Your task to perform on an android device: Open Google Maps and go to "Timeline" Image 0: 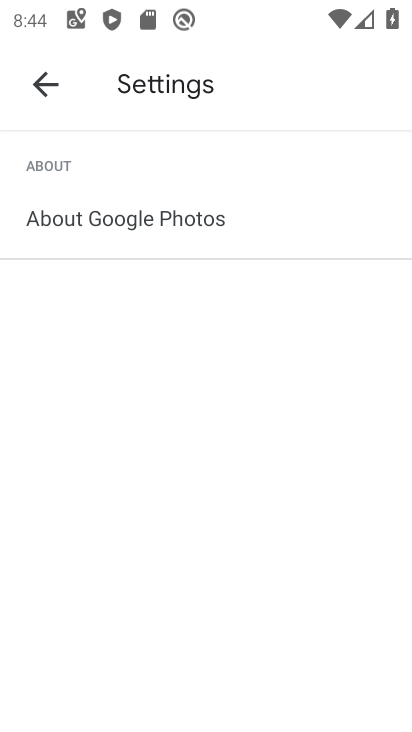
Step 0: press home button
Your task to perform on an android device: Open Google Maps and go to "Timeline" Image 1: 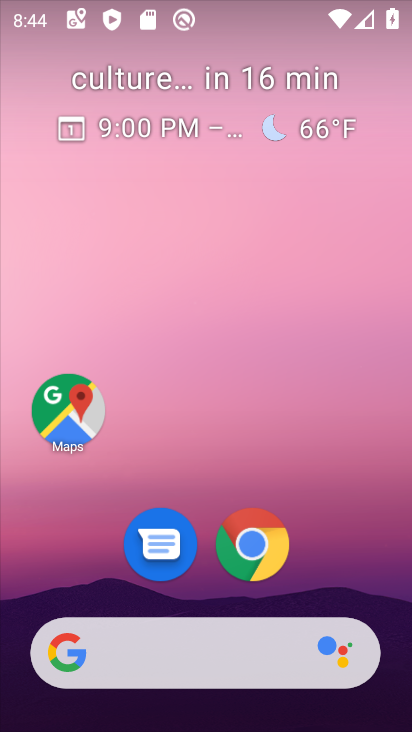
Step 1: drag from (190, 597) to (249, 218)
Your task to perform on an android device: Open Google Maps and go to "Timeline" Image 2: 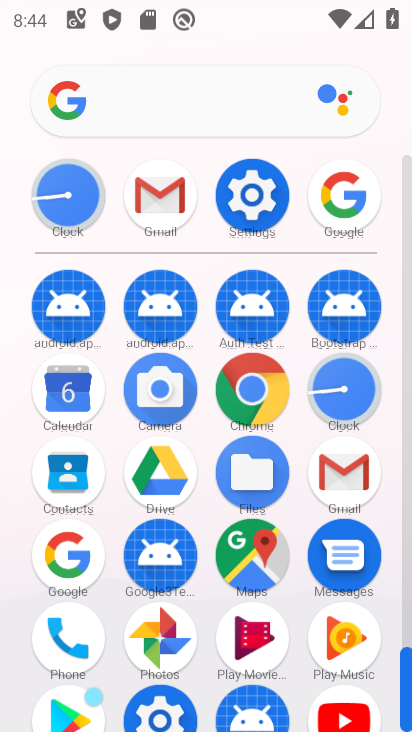
Step 2: click (258, 551)
Your task to perform on an android device: Open Google Maps and go to "Timeline" Image 3: 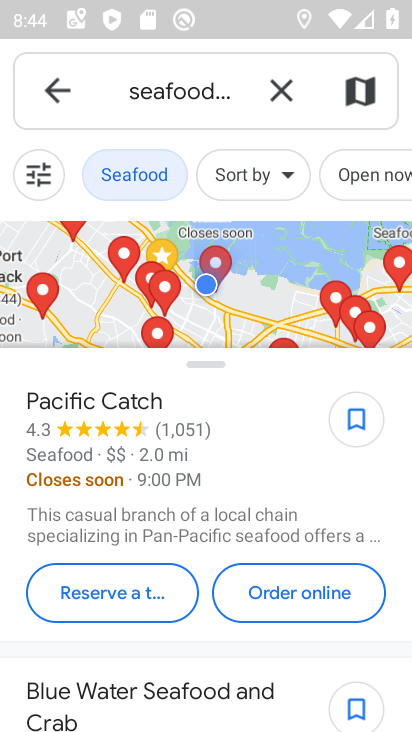
Step 3: click (59, 90)
Your task to perform on an android device: Open Google Maps and go to "Timeline" Image 4: 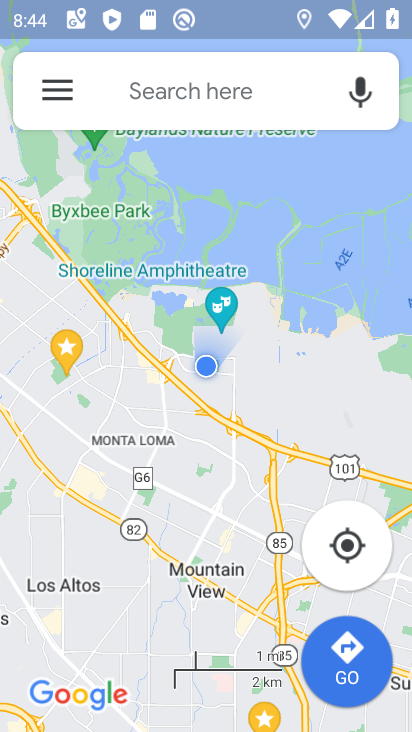
Step 4: click (62, 92)
Your task to perform on an android device: Open Google Maps and go to "Timeline" Image 5: 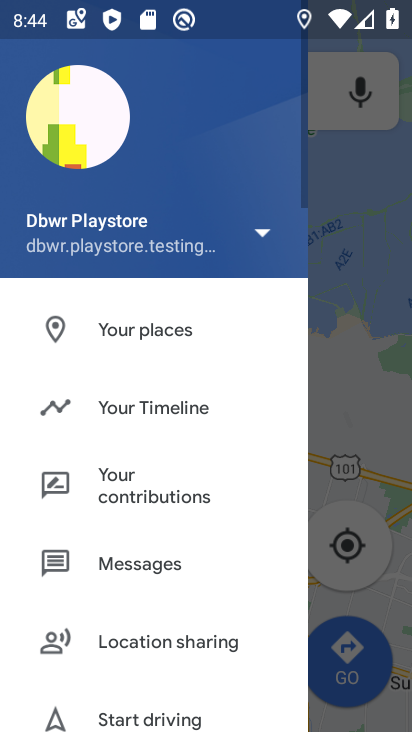
Step 5: click (140, 407)
Your task to perform on an android device: Open Google Maps and go to "Timeline" Image 6: 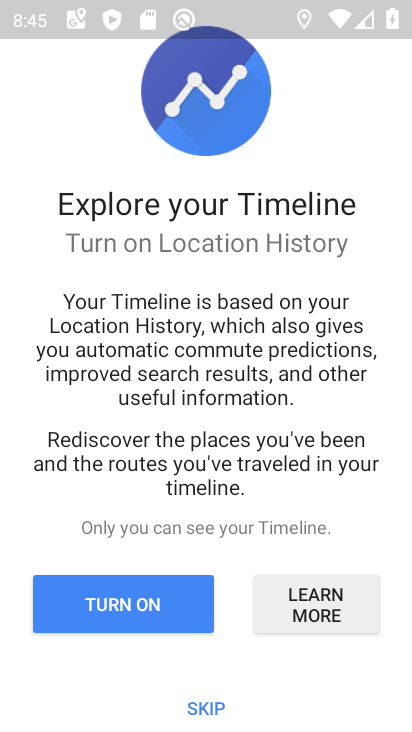
Step 6: task complete